Your task to perform on an android device: check data usage Image 0: 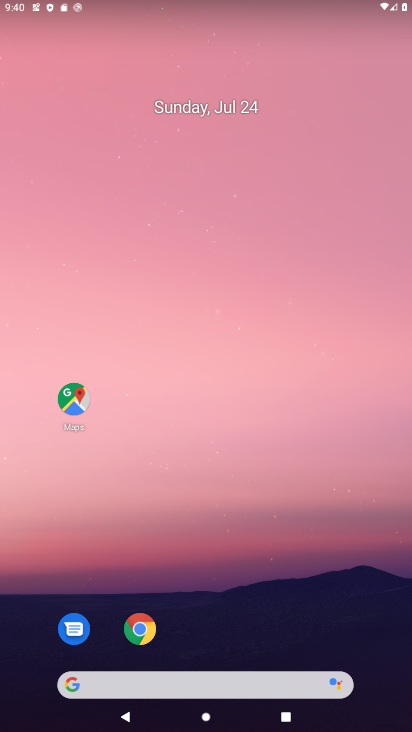
Step 0: task complete